Your task to perform on an android device: Open my contact list Image 0: 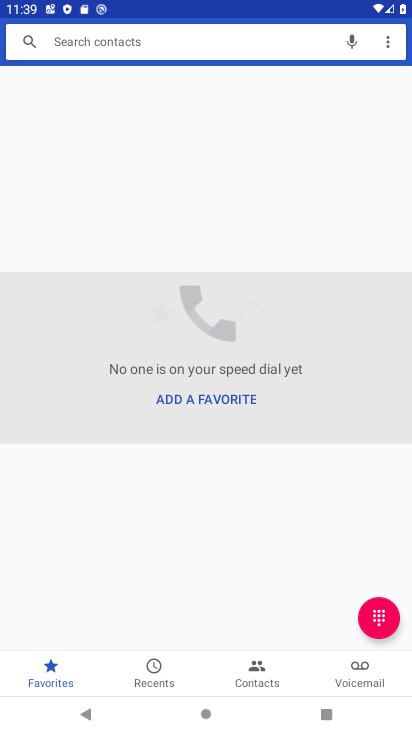
Step 0: press home button
Your task to perform on an android device: Open my contact list Image 1: 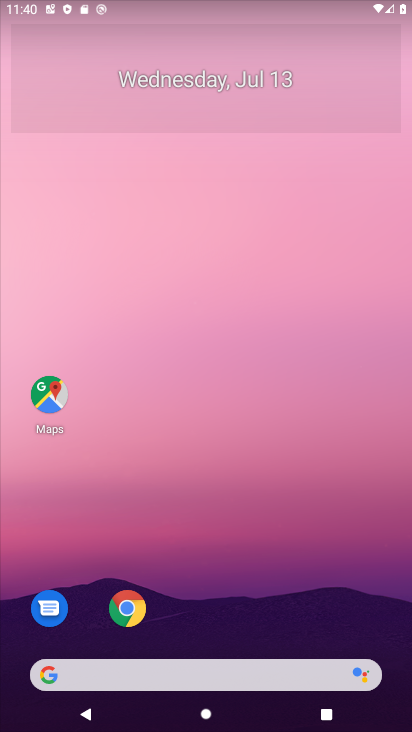
Step 1: drag from (132, 727) to (362, 4)
Your task to perform on an android device: Open my contact list Image 2: 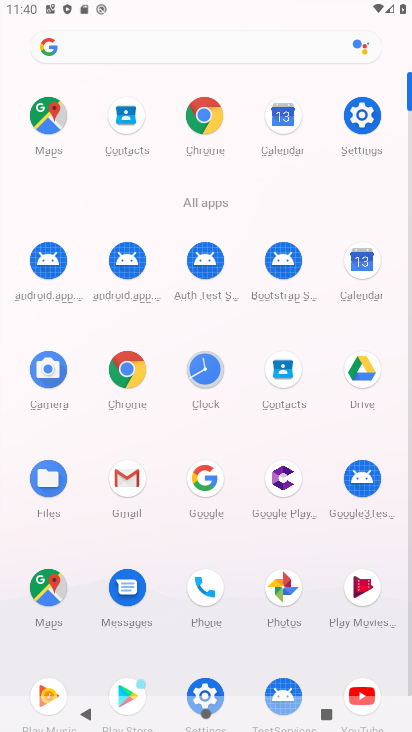
Step 2: click (123, 118)
Your task to perform on an android device: Open my contact list Image 3: 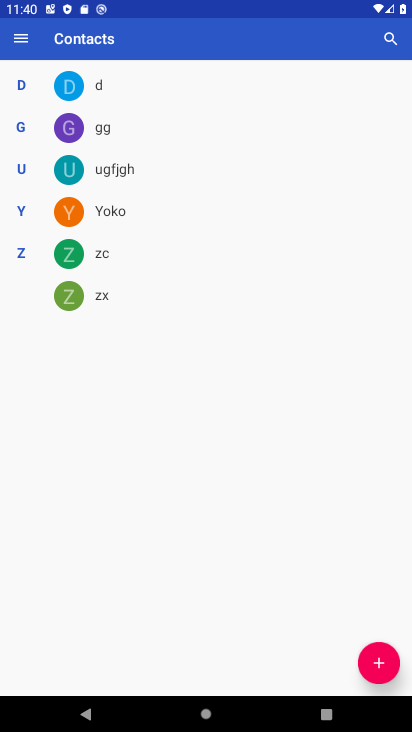
Step 3: task complete